Your task to perform on an android device: Turn off the flashlight Image 0: 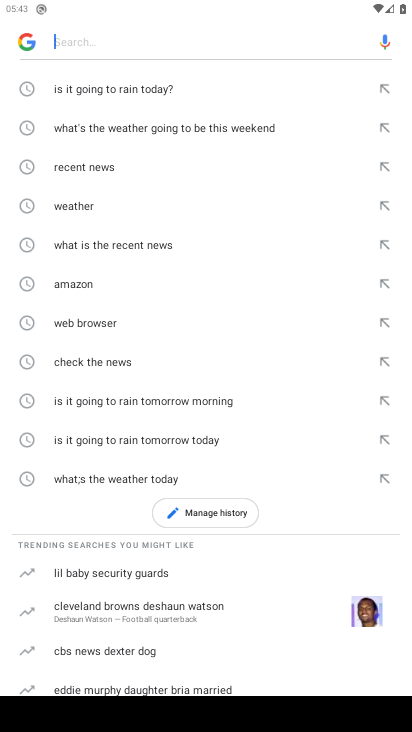
Step 0: press home button
Your task to perform on an android device: Turn off the flashlight Image 1: 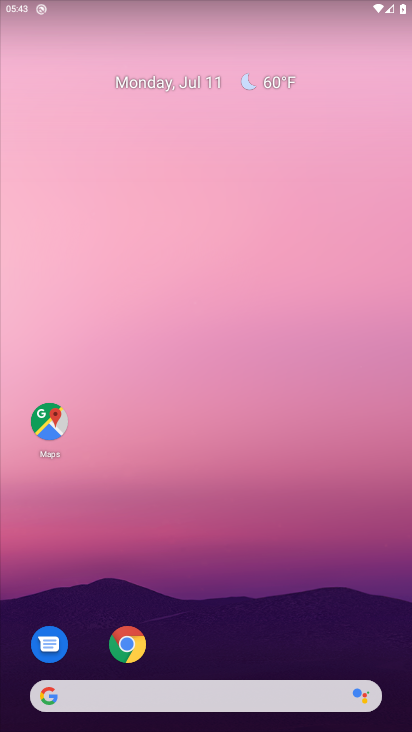
Step 1: drag from (225, 1) to (387, 424)
Your task to perform on an android device: Turn off the flashlight Image 2: 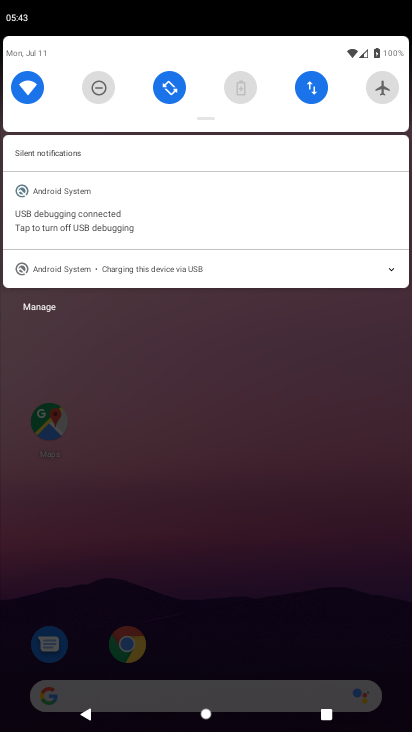
Step 2: drag from (216, 111) to (276, 463)
Your task to perform on an android device: Turn off the flashlight Image 3: 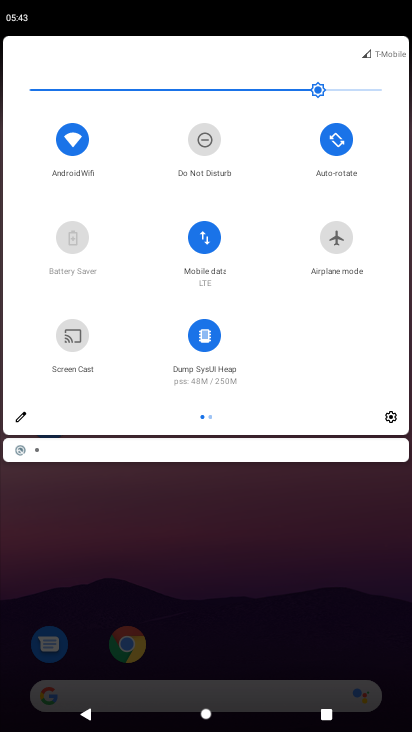
Step 3: drag from (356, 313) to (0, 305)
Your task to perform on an android device: Turn off the flashlight Image 4: 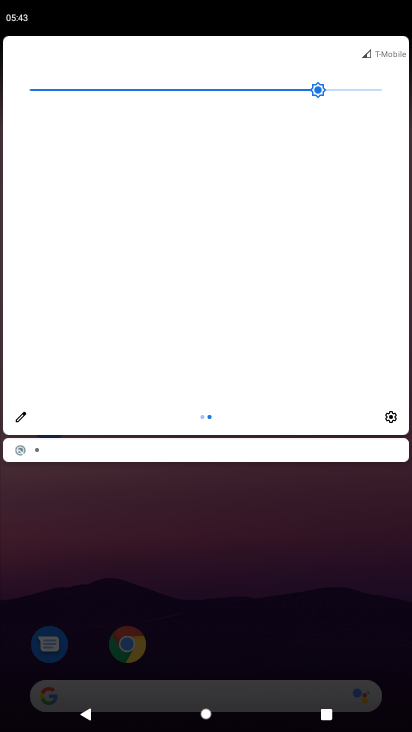
Step 4: click (10, 421)
Your task to perform on an android device: Turn off the flashlight Image 5: 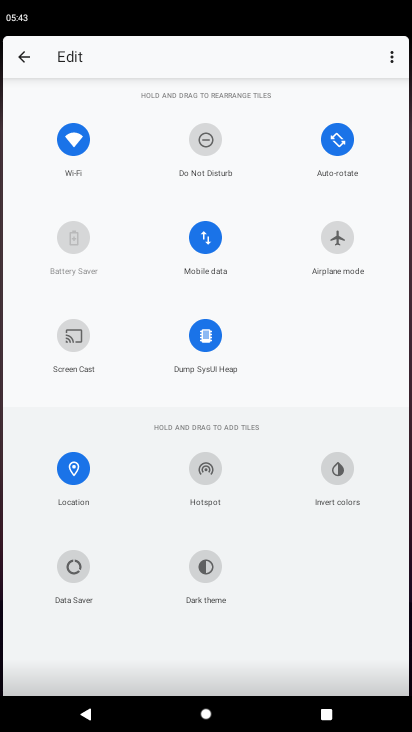
Step 5: task complete